Your task to perform on an android device: Turn off the flashlight Image 0: 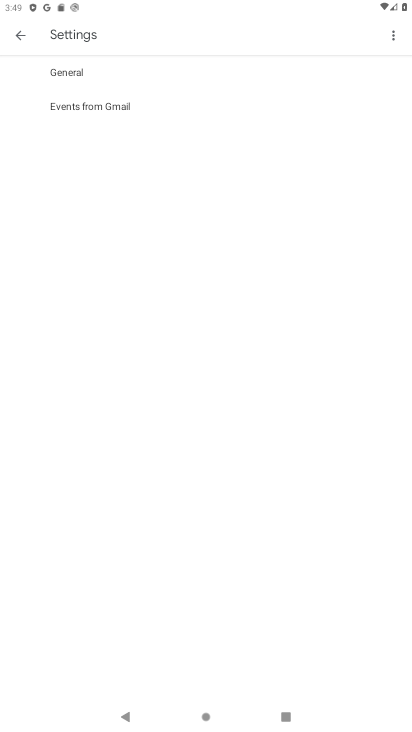
Step 0: press home button
Your task to perform on an android device: Turn off the flashlight Image 1: 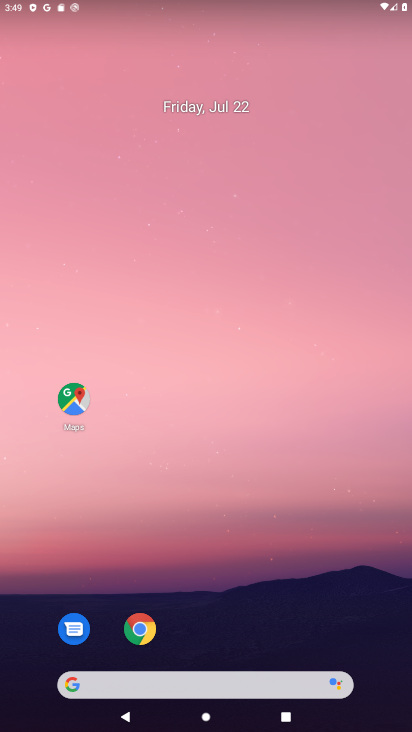
Step 1: task complete